Your task to perform on an android device: add a contact Image 0: 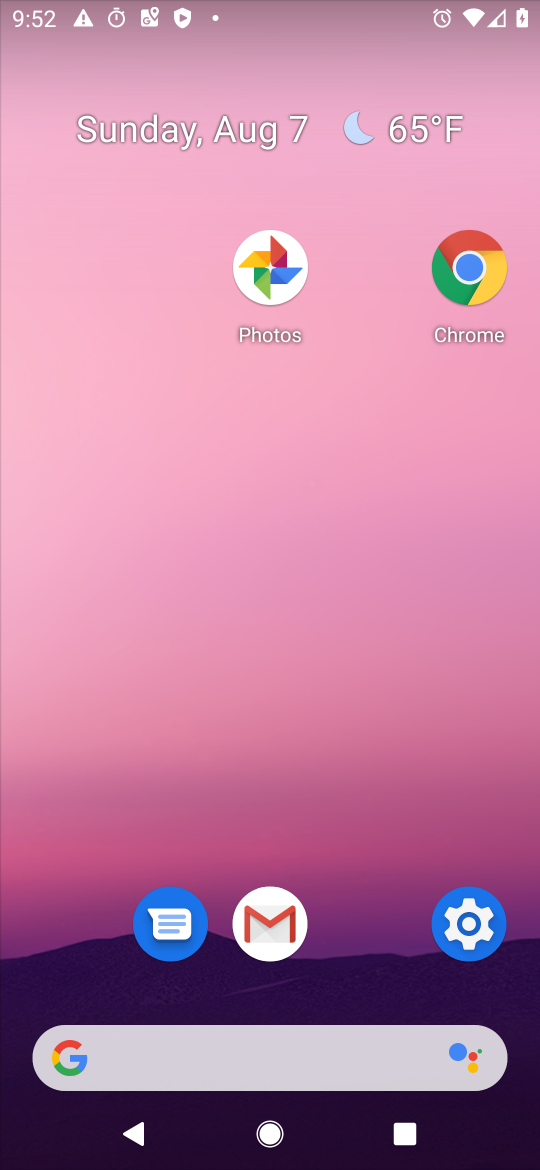
Step 0: drag from (347, 1091) to (381, 454)
Your task to perform on an android device: add a contact Image 1: 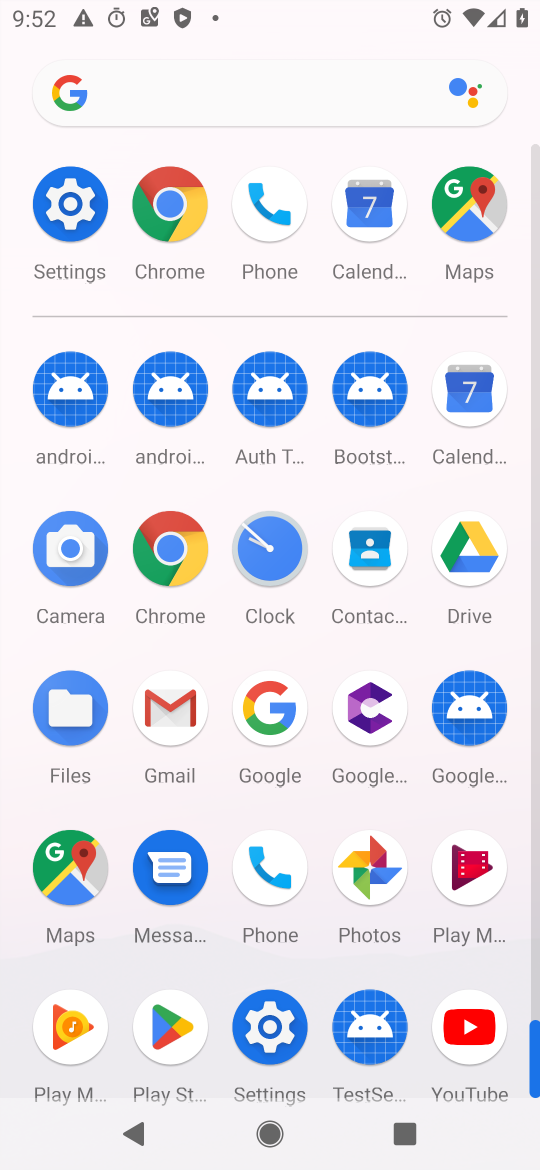
Step 1: click (259, 211)
Your task to perform on an android device: add a contact Image 2: 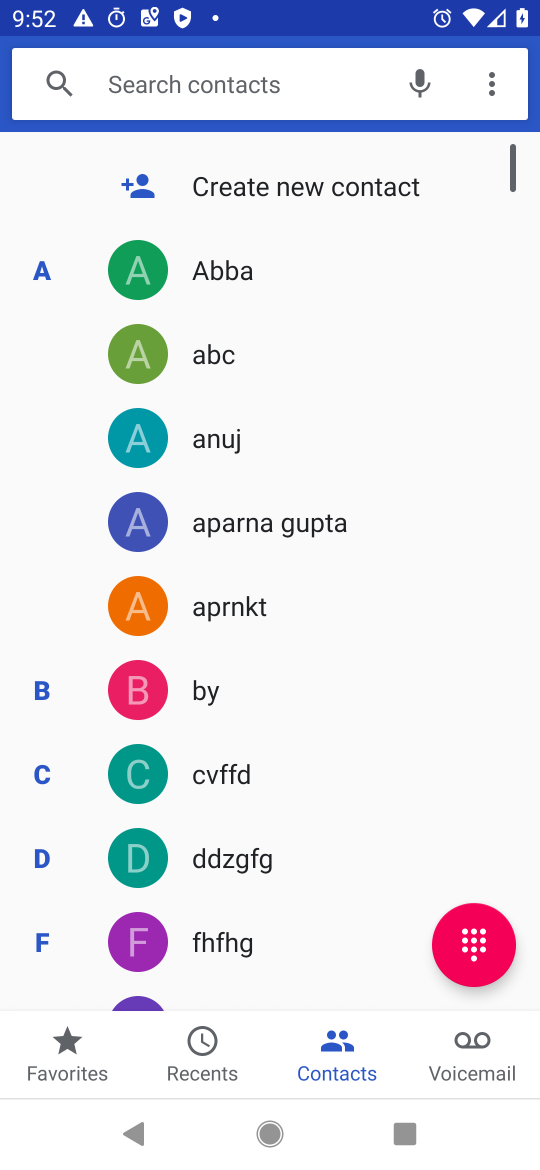
Step 2: click (246, 195)
Your task to perform on an android device: add a contact Image 3: 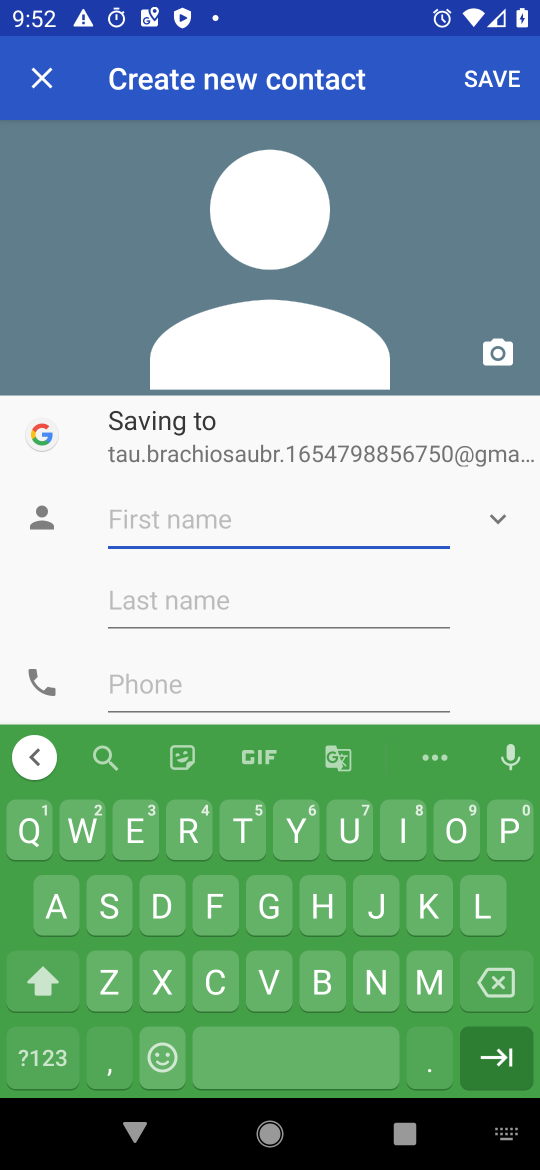
Step 3: click (148, 845)
Your task to perform on an android device: add a contact Image 4: 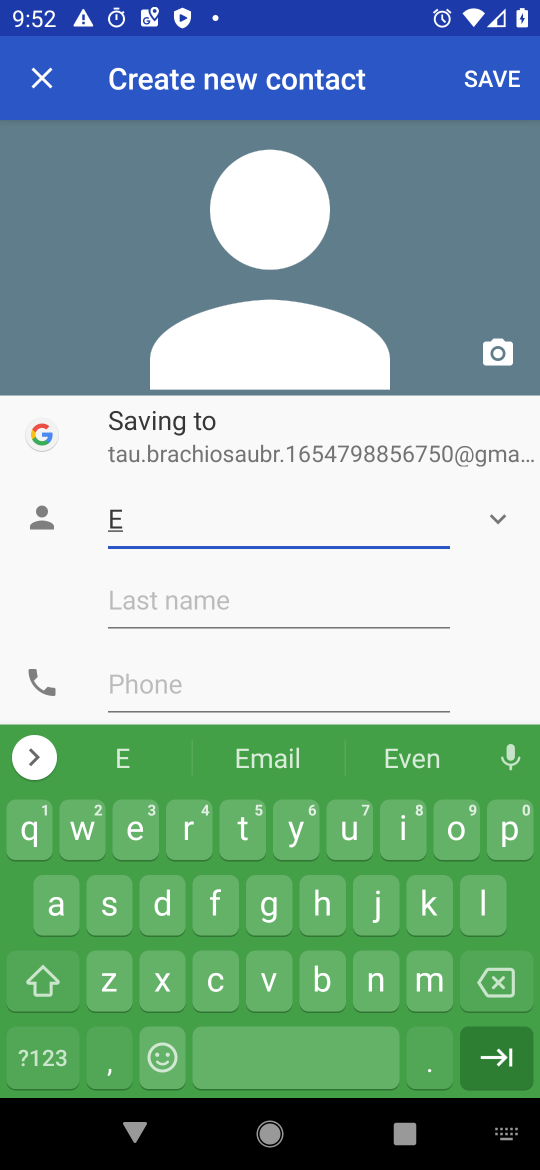
Step 4: click (236, 837)
Your task to perform on an android device: add a contact Image 5: 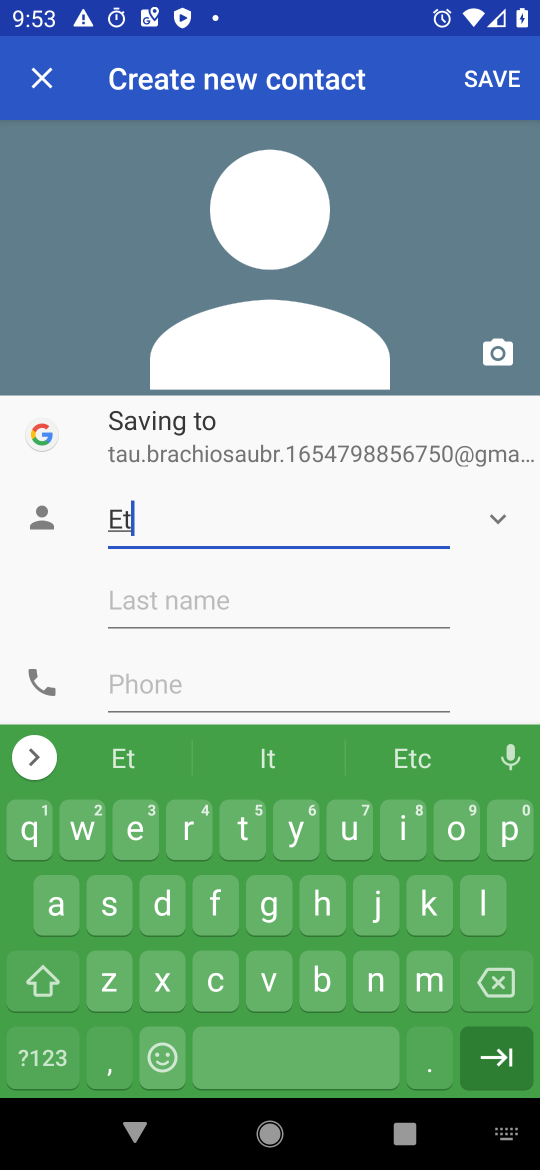
Step 5: click (173, 681)
Your task to perform on an android device: add a contact Image 6: 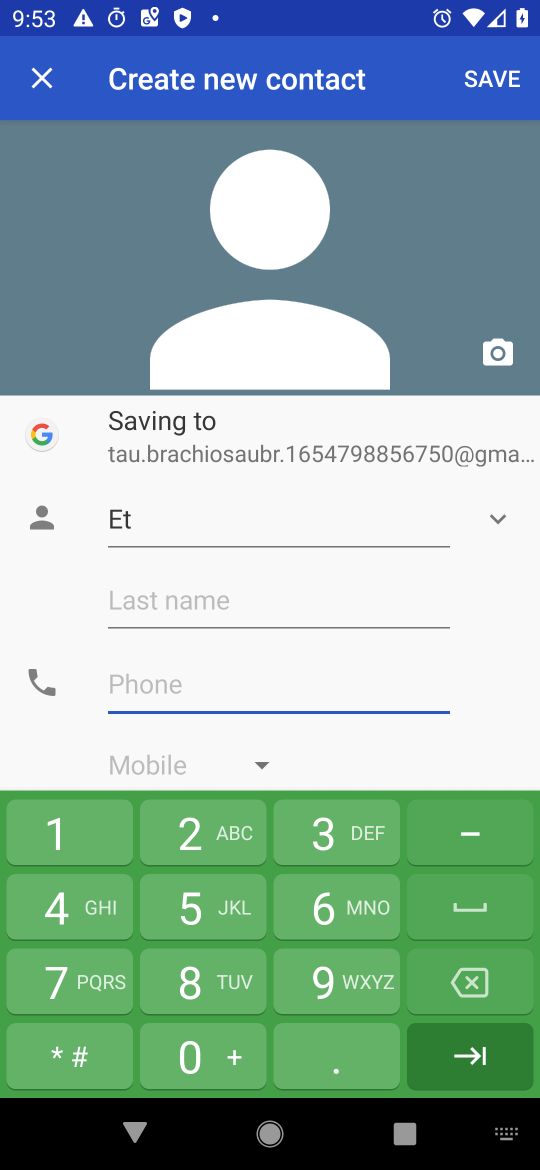
Step 6: click (329, 952)
Your task to perform on an android device: add a contact Image 7: 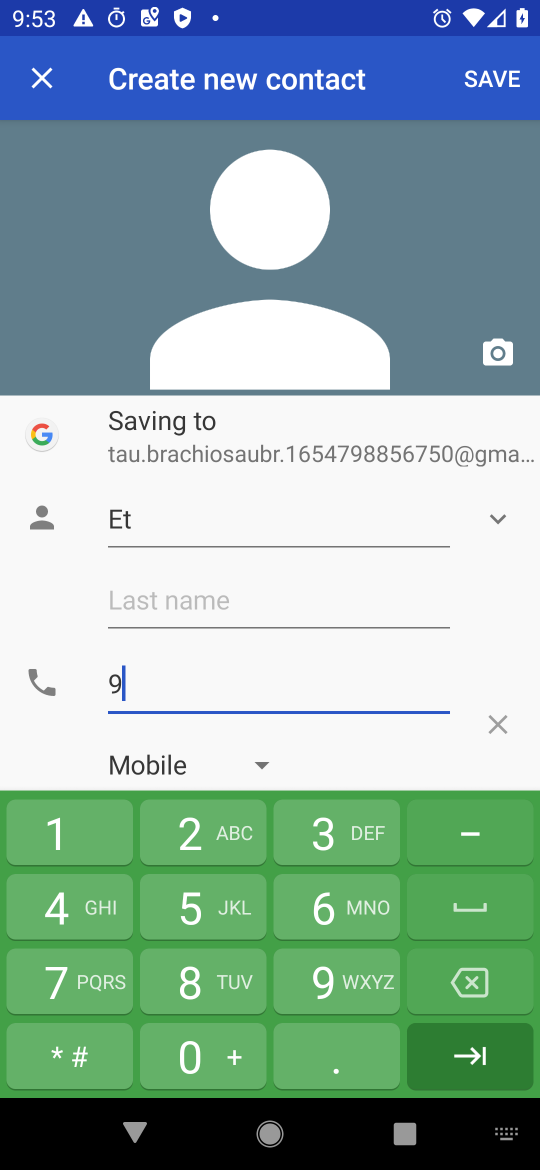
Step 7: click (225, 982)
Your task to perform on an android device: add a contact Image 8: 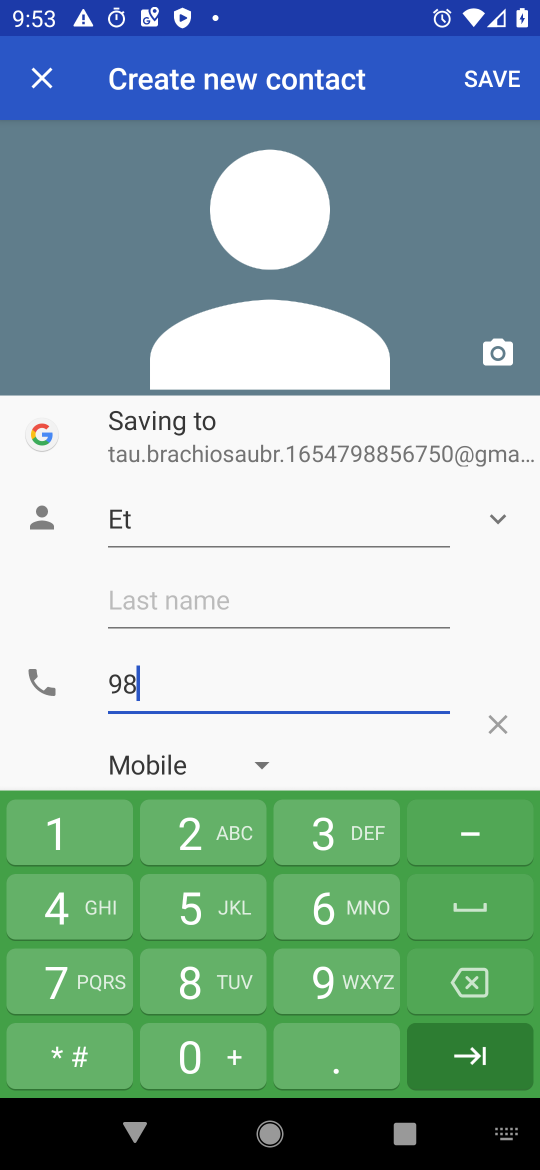
Step 8: click (216, 911)
Your task to perform on an android device: add a contact Image 9: 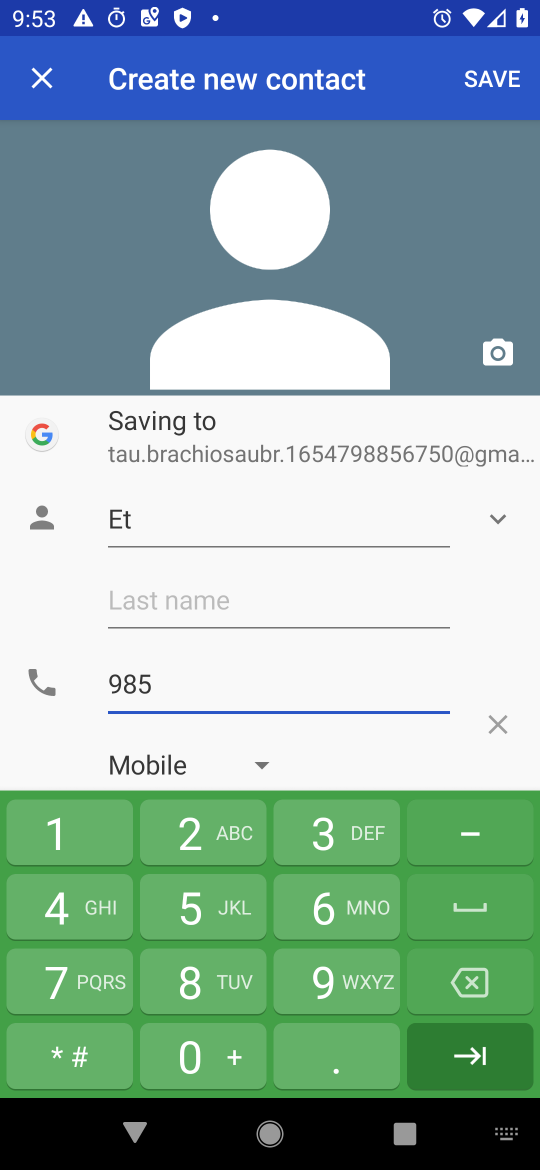
Step 9: click (314, 821)
Your task to perform on an android device: add a contact Image 10: 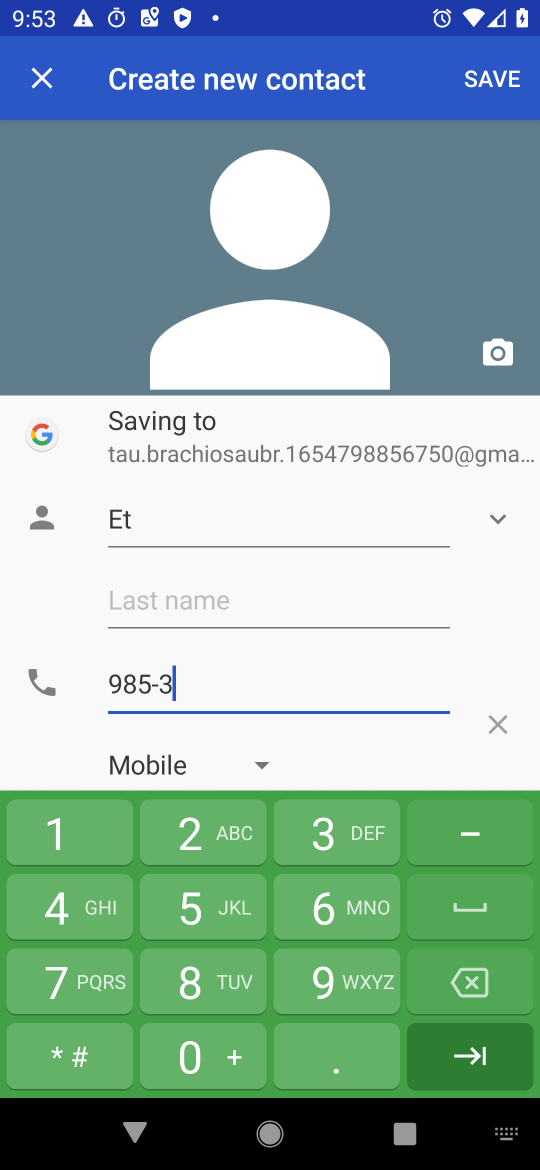
Step 10: click (205, 855)
Your task to perform on an android device: add a contact Image 11: 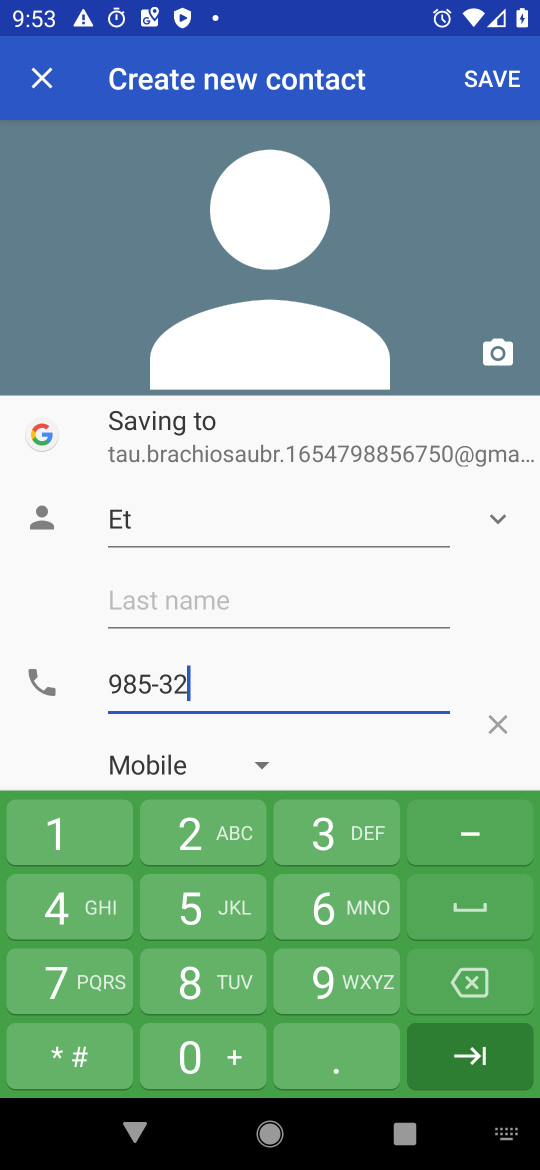
Step 11: click (213, 916)
Your task to perform on an android device: add a contact Image 12: 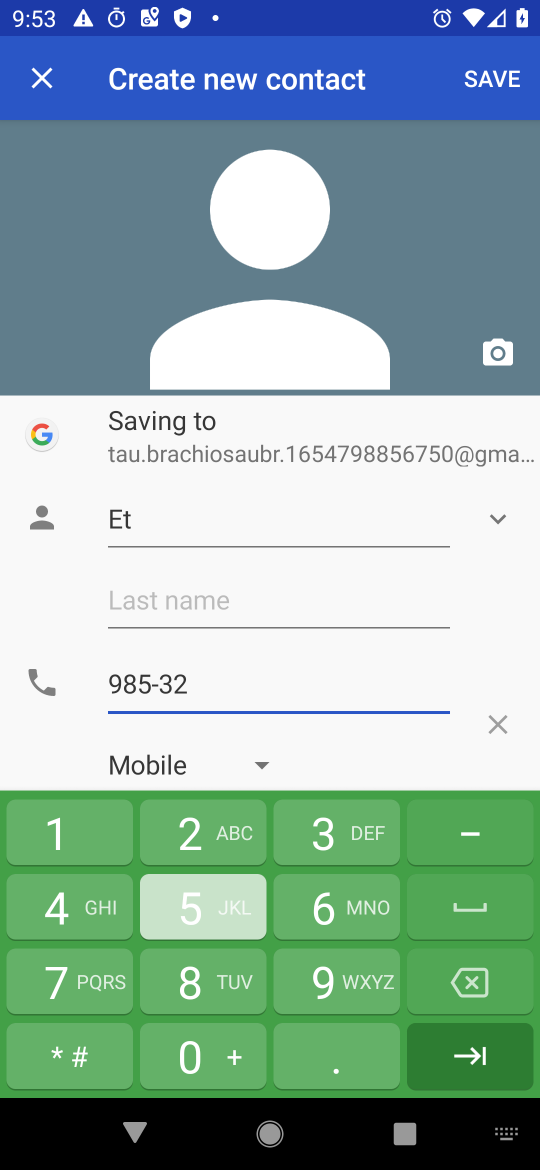
Step 12: click (213, 916)
Your task to perform on an android device: add a contact Image 13: 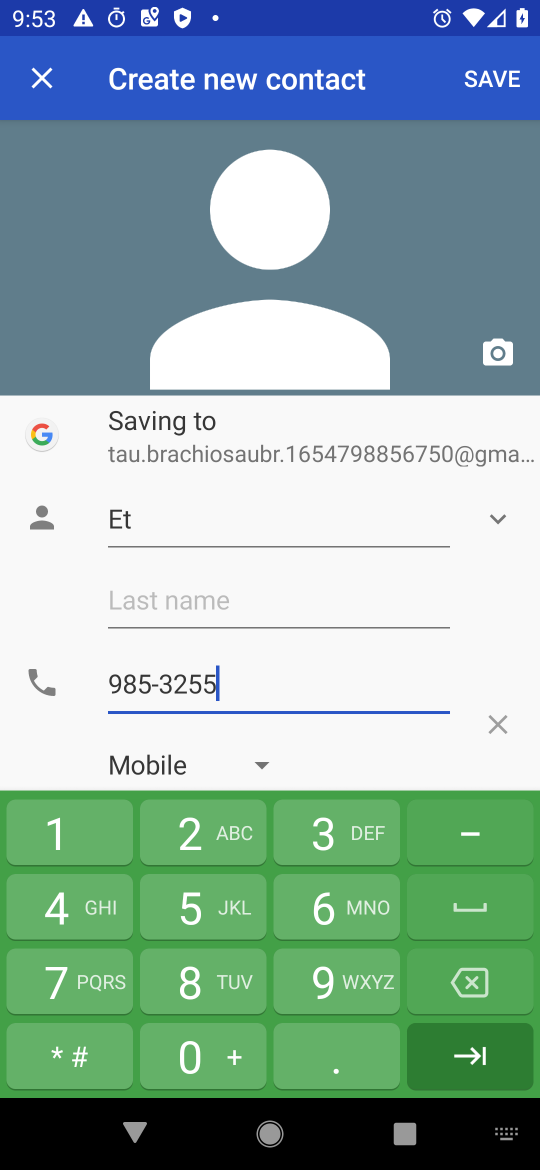
Step 13: click (493, 68)
Your task to perform on an android device: add a contact Image 14: 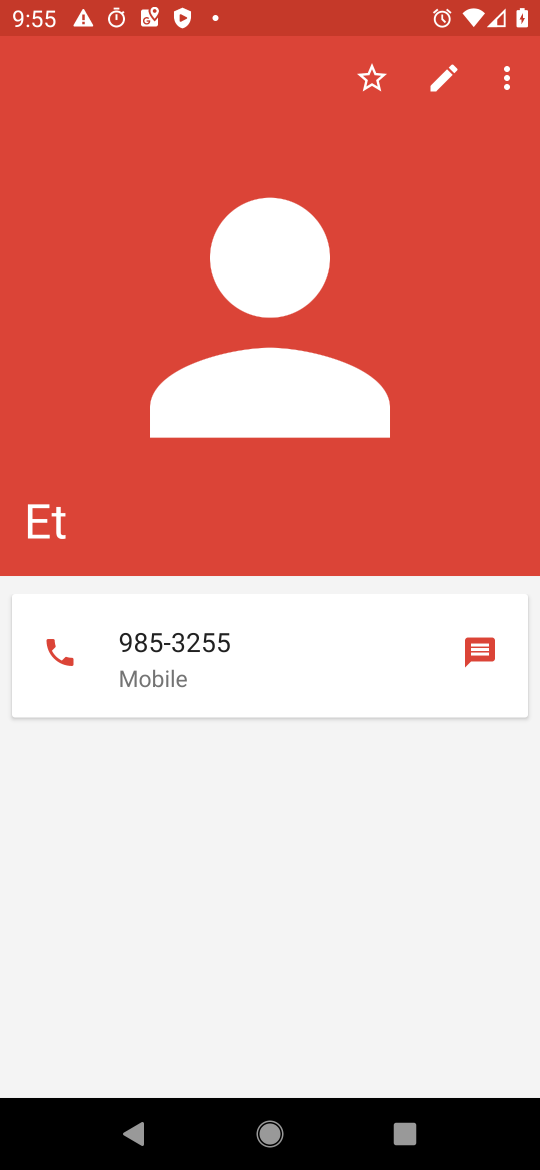
Step 14: task complete